Your task to perform on an android device: Open the calendar and show me this week's events Image 0: 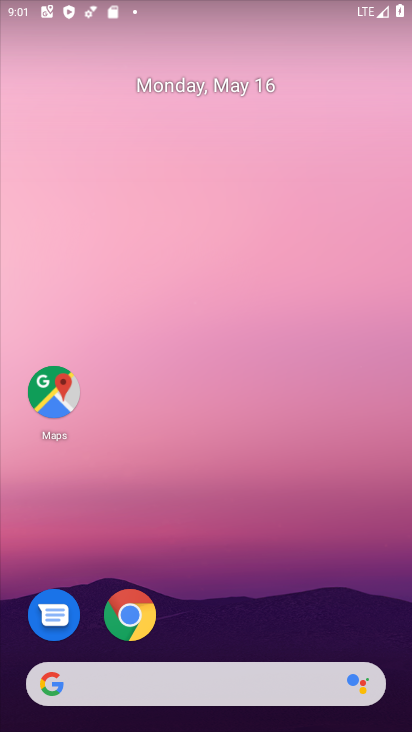
Step 0: drag from (191, 680) to (142, 179)
Your task to perform on an android device: Open the calendar and show me this week's events Image 1: 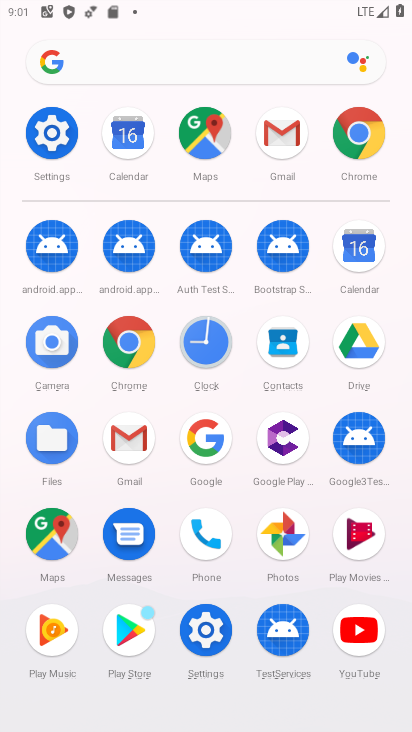
Step 1: click (356, 254)
Your task to perform on an android device: Open the calendar and show me this week's events Image 2: 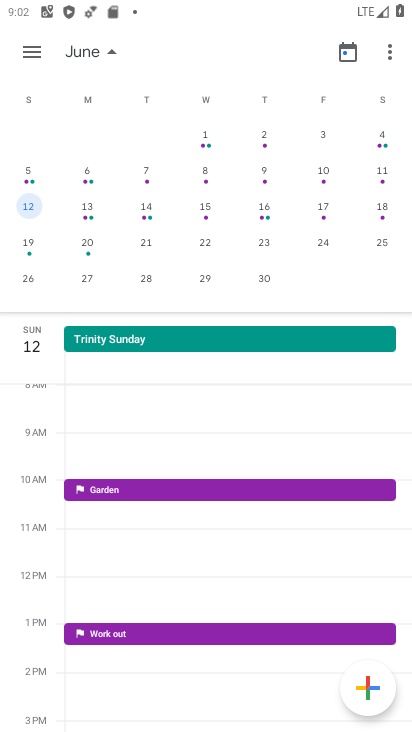
Step 2: drag from (84, 269) to (367, 425)
Your task to perform on an android device: Open the calendar and show me this week's events Image 3: 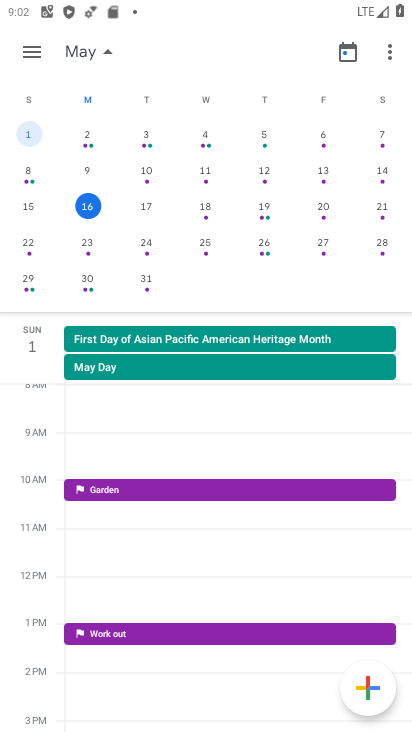
Step 3: drag from (196, 211) to (346, 201)
Your task to perform on an android device: Open the calendar and show me this week's events Image 4: 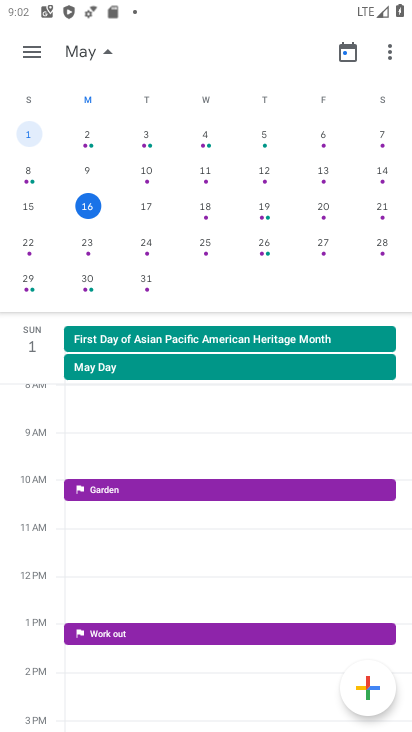
Step 4: click (96, 209)
Your task to perform on an android device: Open the calendar and show me this week's events Image 5: 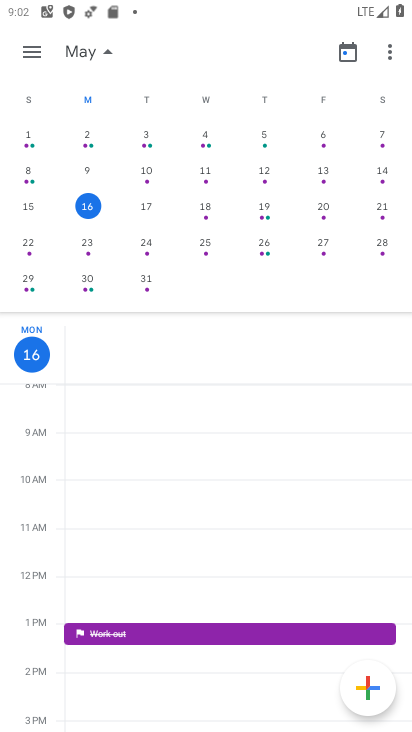
Step 5: click (30, 57)
Your task to perform on an android device: Open the calendar and show me this week's events Image 6: 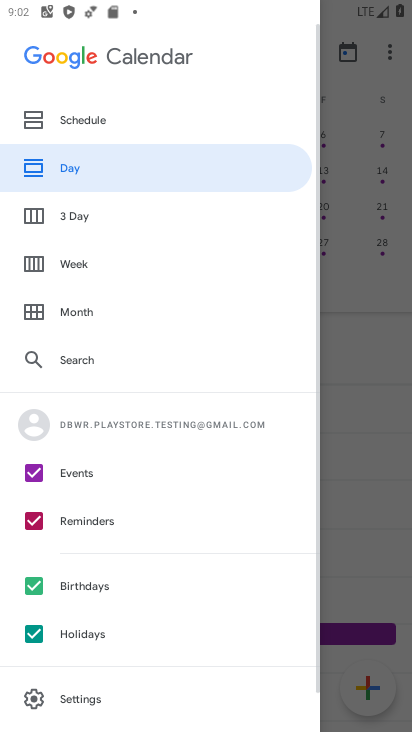
Step 6: click (97, 126)
Your task to perform on an android device: Open the calendar and show me this week's events Image 7: 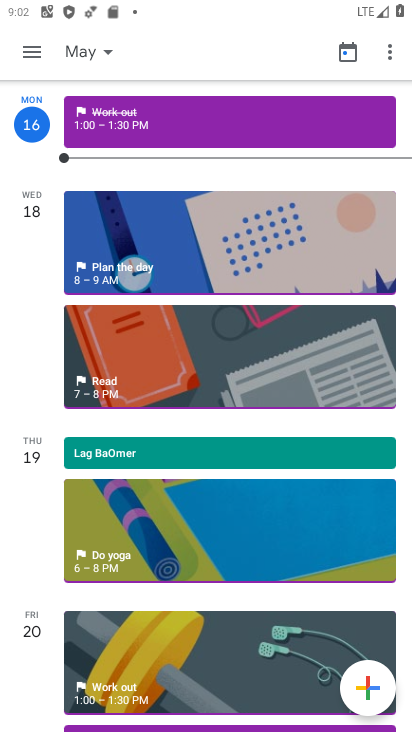
Step 7: task complete